Your task to perform on an android device: add a label to a message in the gmail app Image 0: 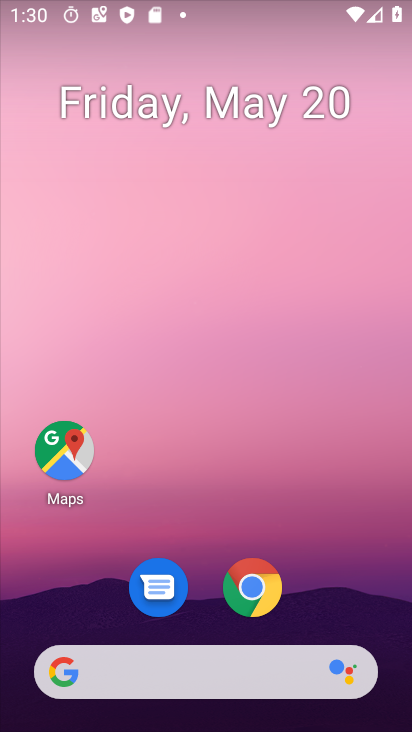
Step 0: drag from (354, 576) to (328, 112)
Your task to perform on an android device: add a label to a message in the gmail app Image 1: 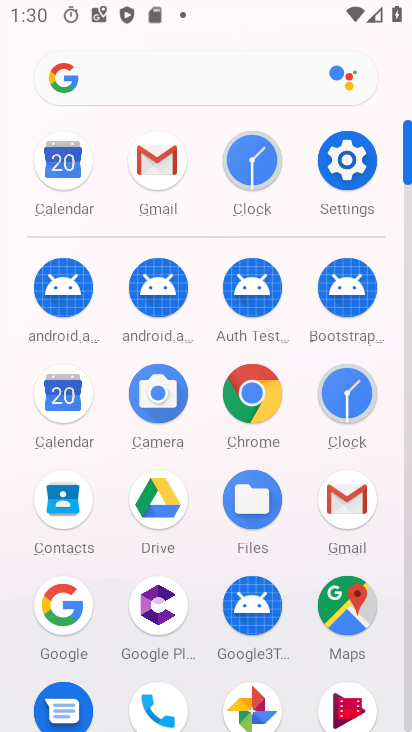
Step 1: click (152, 164)
Your task to perform on an android device: add a label to a message in the gmail app Image 2: 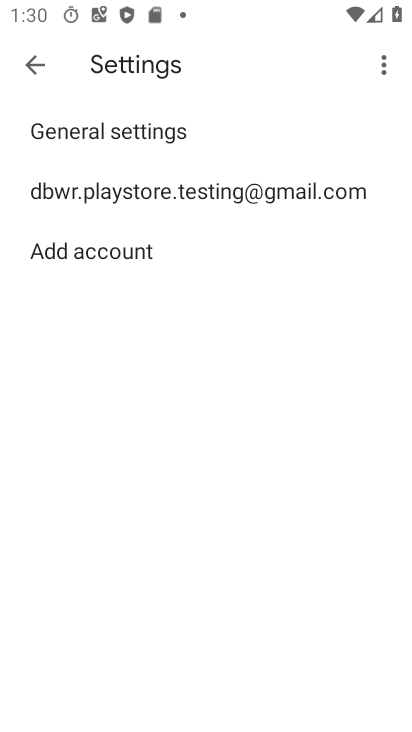
Step 2: click (145, 188)
Your task to perform on an android device: add a label to a message in the gmail app Image 3: 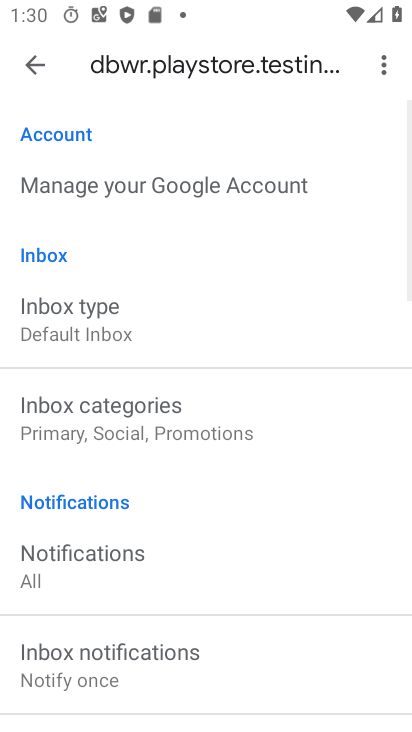
Step 3: click (36, 71)
Your task to perform on an android device: add a label to a message in the gmail app Image 4: 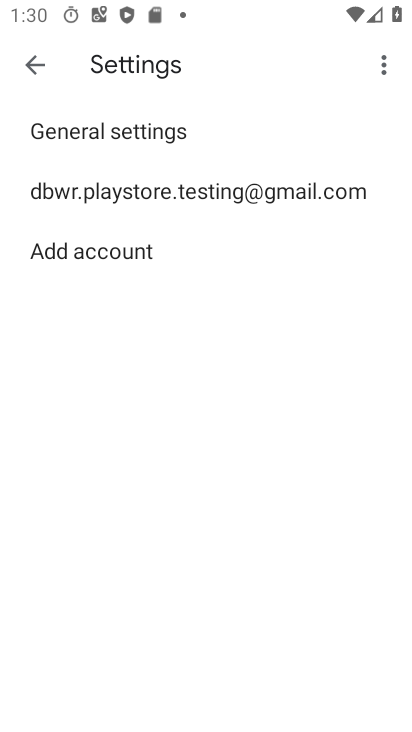
Step 4: click (37, 69)
Your task to perform on an android device: add a label to a message in the gmail app Image 5: 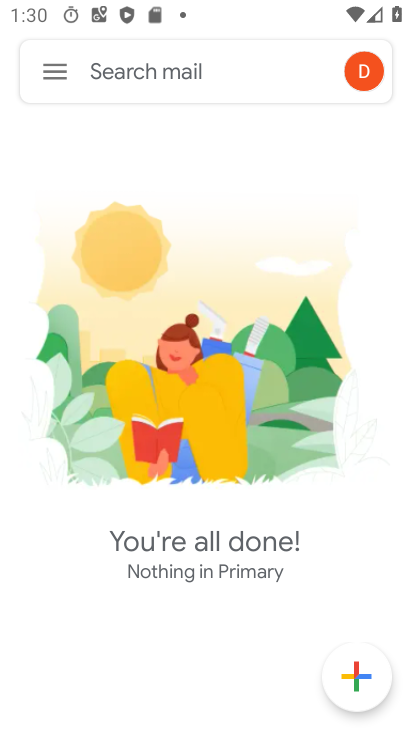
Step 5: click (40, 69)
Your task to perform on an android device: add a label to a message in the gmail app Image 6: 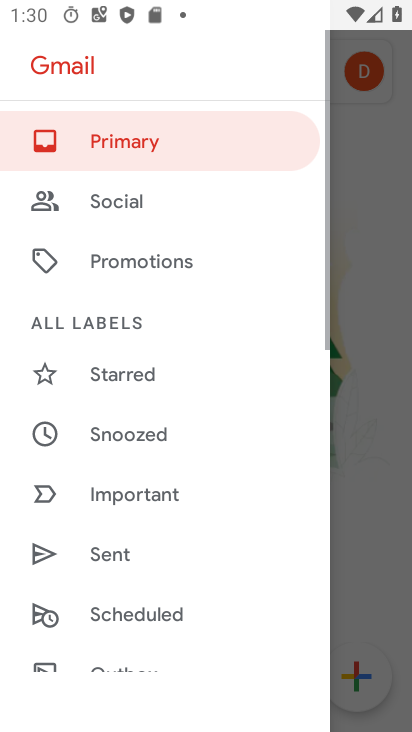
Step 6: click (240, 195)
Your task to perform on an android device: add a label to a message in the gmail app Image 7: 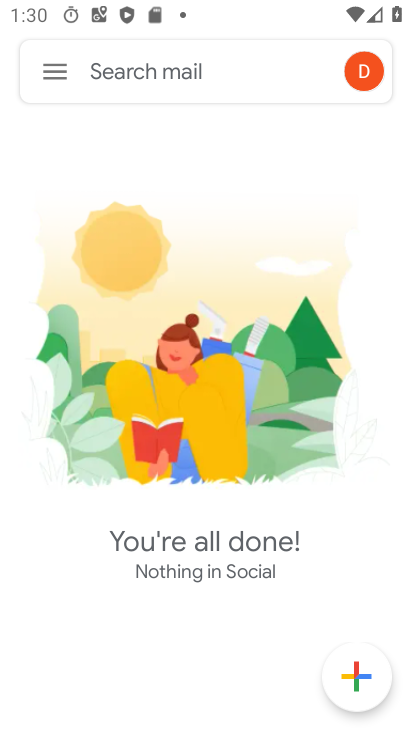
Step 7: click (69, 67)
Your task to perform on an android device: add a label to a message in the gmail app Image 8: 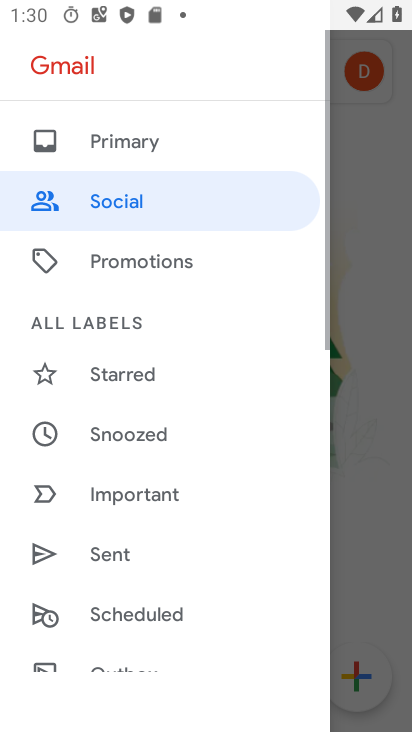
Step 8: drag from (172, 679) to (276, 220)
Your task to perform on an android device: add a label to a message in the gmail app Image 9: 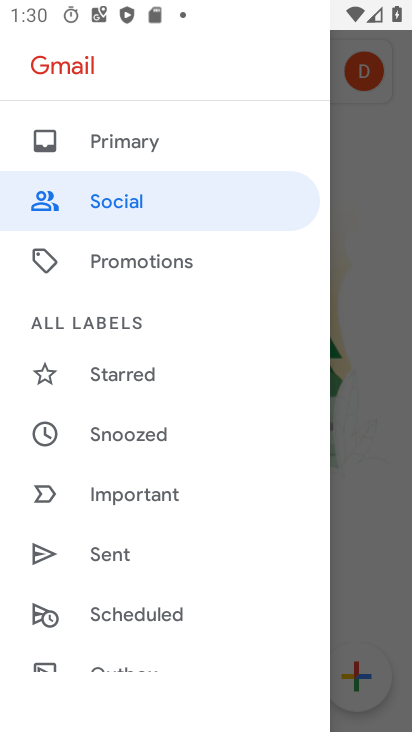
Step 9: drag from (60, 558) to (212, 178)
Your task to perform on an android device: add a label to a message in the gmail app Image 10: 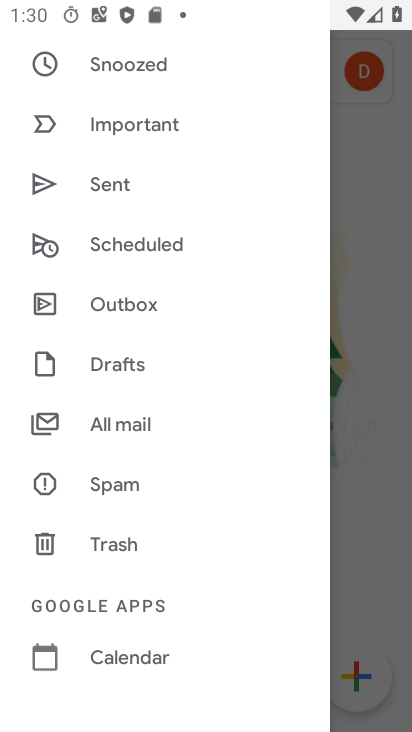
Step 10: click (121, 440)
Your task to perform on an android device: add a label to a message in the gmail app Image 11: 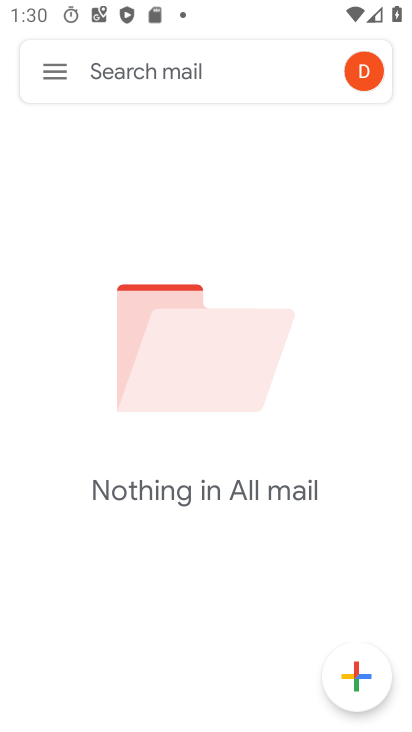
Step 11: task complete